Your task to perform on an android device: manage bookmarks in the chrome app Image 0: 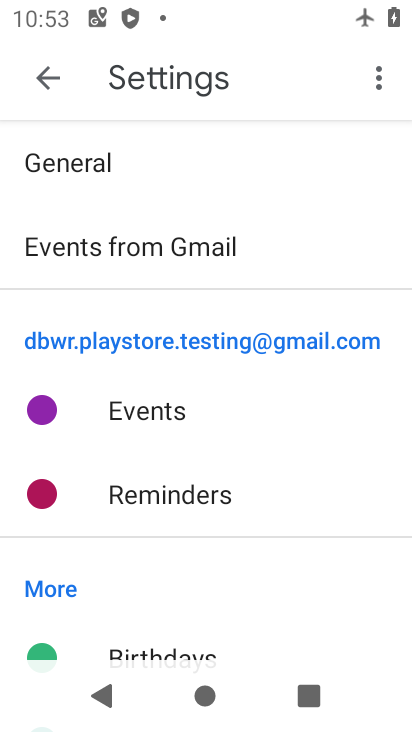
Step 0: press home button
Your task to perform on an android device: manage bookmarks in the chrome app Image 1: 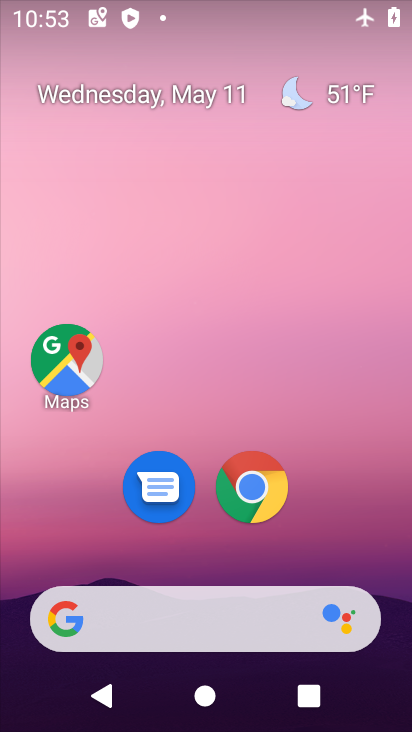
Step 1: drag from (361, 489) to (298, 192)
Your task to perform on an android device: manage bookmarks in the chrome app Image 2: 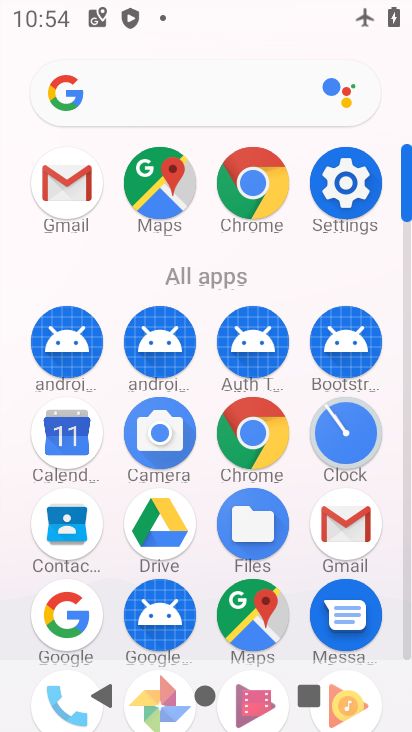
Step 2: click (229, 432)
Your task to perform on an android device: manage bookmarks in the chrome app Image 3: 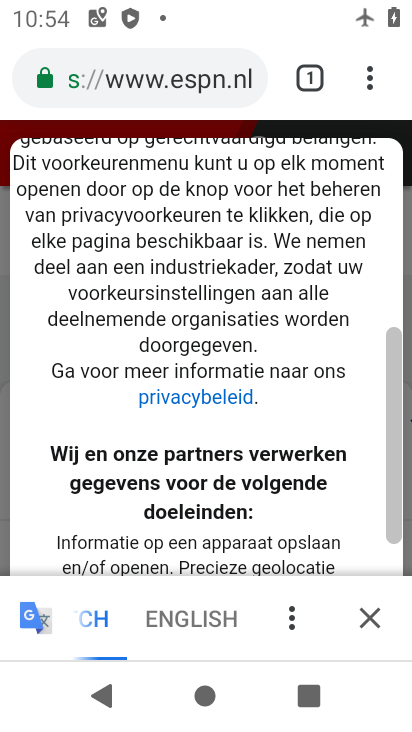
Step 3: click (385, 87)
Your task to perform on an android device: manage bookmarks in the chrome app Image 4: 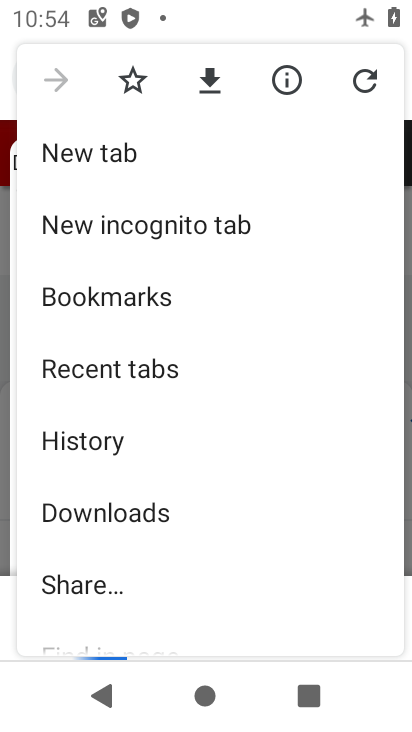
Step 4: click (134, 306)
Your task to perform on an android device: manage bookmarks in the chrome app Image 5: 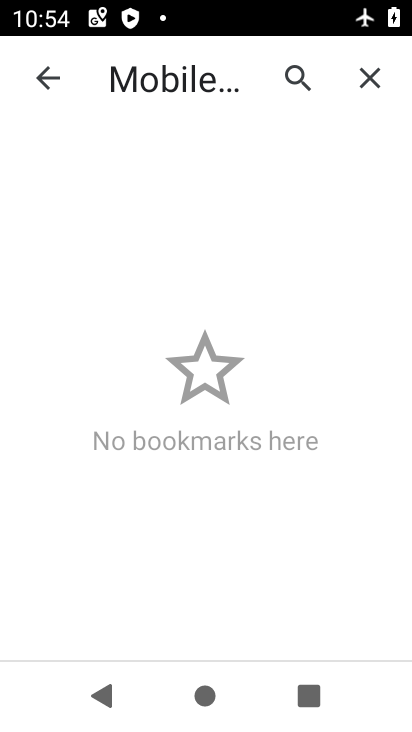
Step 5: task complete